Your task to perform on an android device: stop showing notifications on the lock screen Image 0: 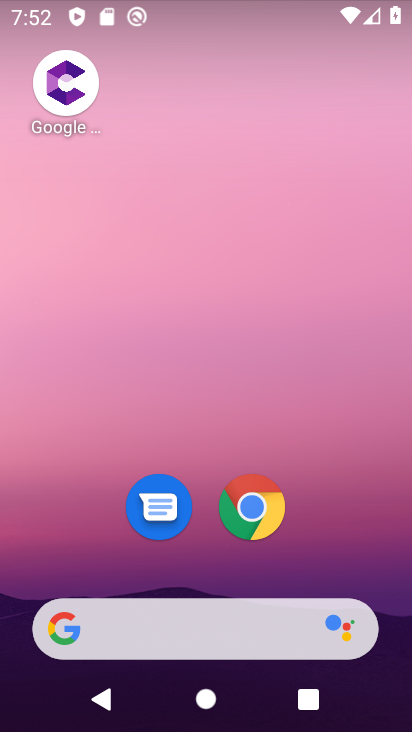
Step 0: drag from (331, 586) to (381, 19)
Your task to perform on an android device: stop showing notifications on the lock screen Image 1: 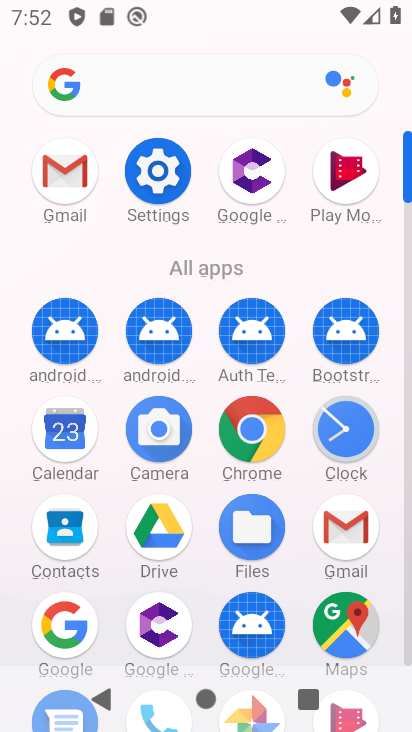
Step 1: click (164, 179)
Your task to perform on an android device: stop showing notifications on the lock screen Image 2: 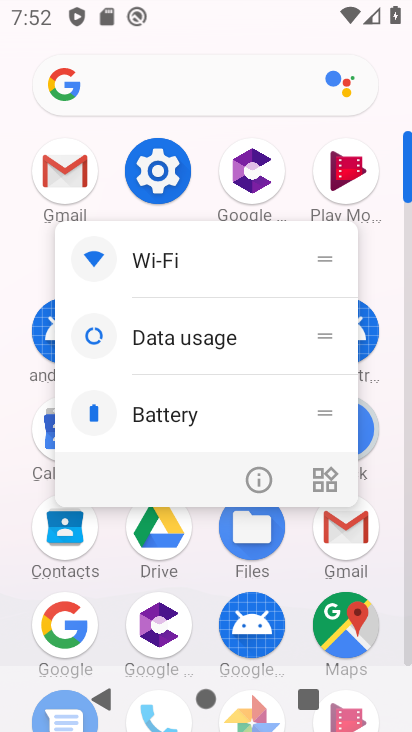
Step 2: click (164, 179)
Your task to perform on an android device: stop showing notifications on the lock screen Image 3: 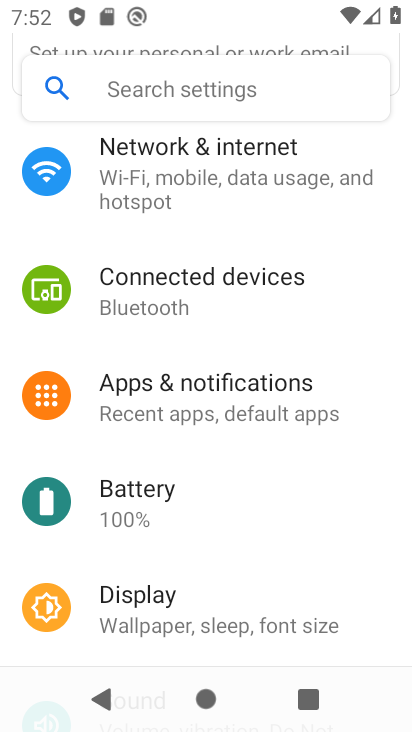
Step 3: click (186, 414)
Your task to perform on an android device: stop showing notifications on the lock screen Image 4: 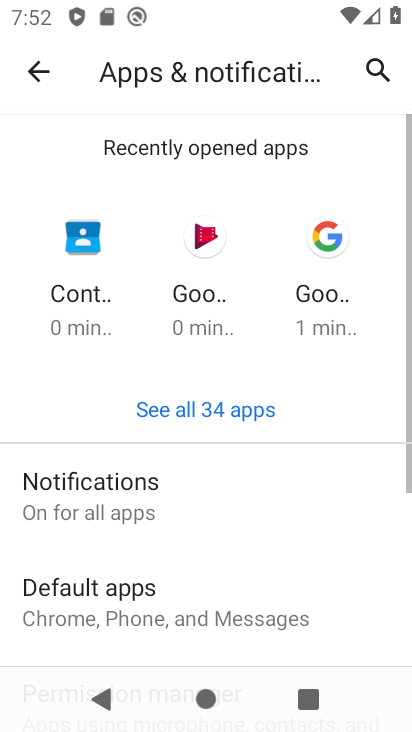
Step 4: drag from (195, 514) to (202, 254)
Your task to perform on an android device: stop showing notifications on the lock screen Image 5: 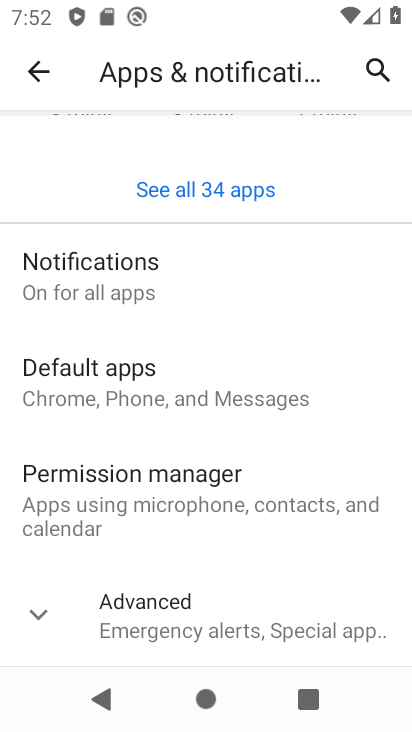
Step 5: click (40, 288)
Your task to perform on an android device: stop showing notifications on the lock screen Image 6: 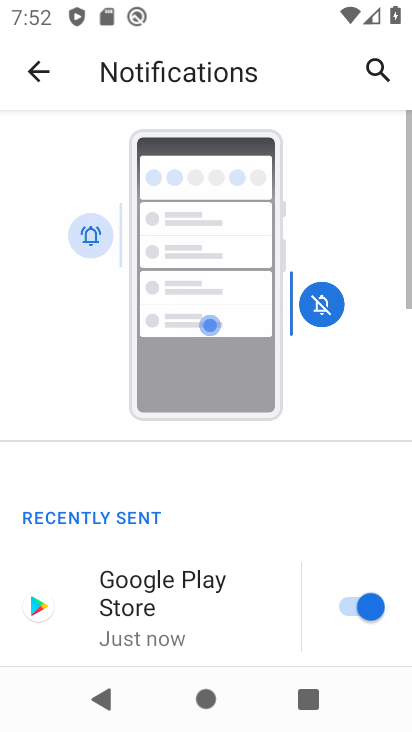
Step 6: drag from (173, 580) to (186, 130)
Your task to perform on an android device: stop showing notifications on the lock screen Image 7: 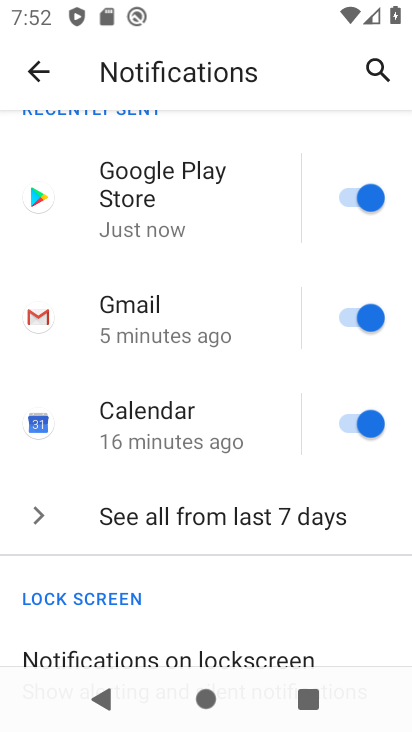
Step 7: drag from (134, 504) to (146, 197)
Your task to perform on an android device: stop showing notifications on the lock screen Image 8: 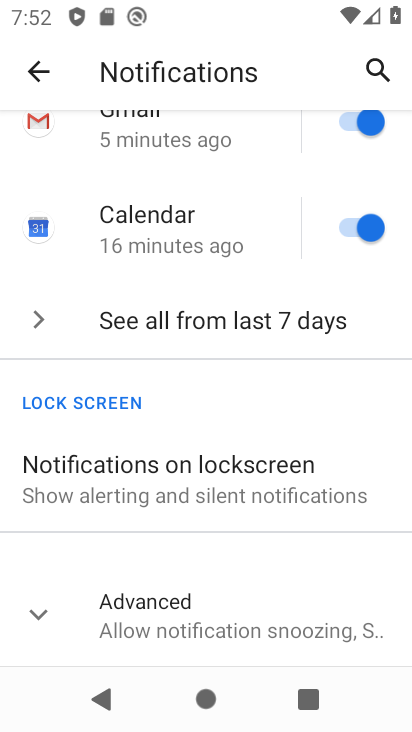
Step 8: click (86, 483)
Your task to perform on an android device: stop showing notifications on the lock screen Image 9: 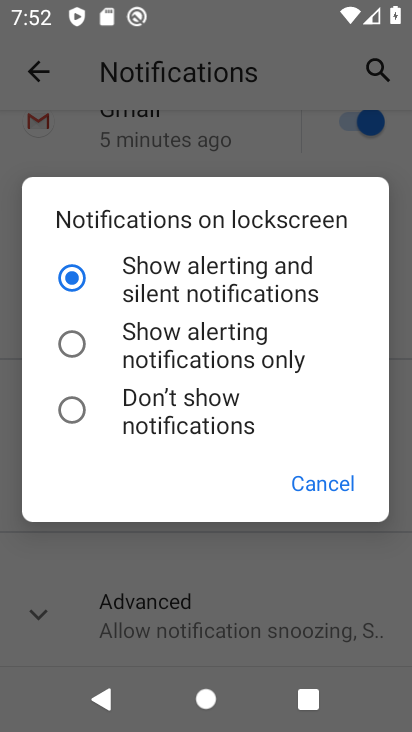
Step 9: click (68, 413)
Your task to perform on an android device: stop showing notifications on the lock screen Image 10: 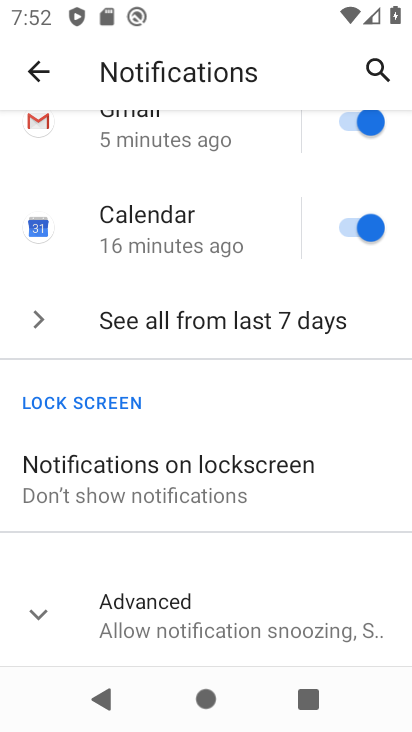
Step 10: task complete